Your task to perform on an android device: toggle notifications settings in the gmail app Image 0: 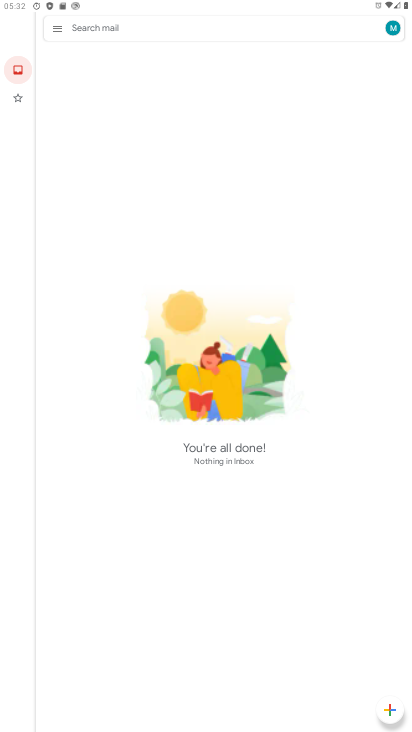
Step 0: press home button
Your task to perform on an android device: toggle notifications settings in the gmail app Image 1: 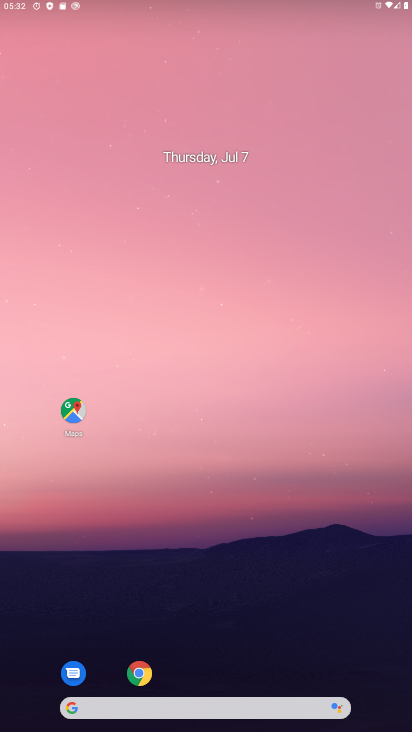
Step 1: drag from (304, 652) to (307, 120)
Your task to perform on an android device: toggle notifications settings in the gmail app Image 2: 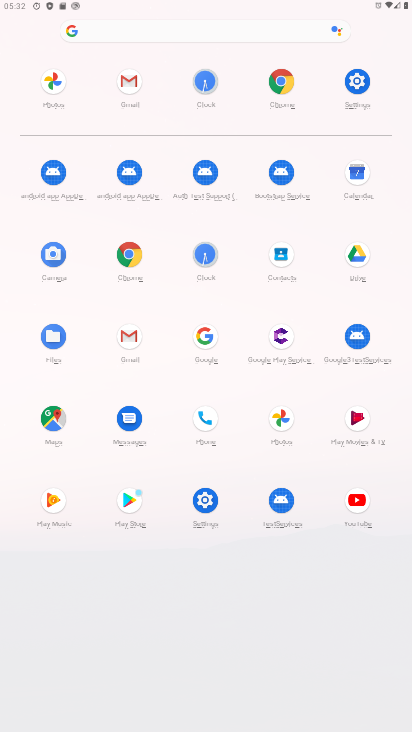
Step 2: click (136, 325)
Your task to perform on an android device: toggle notifications settings in the gmail app Image 3: 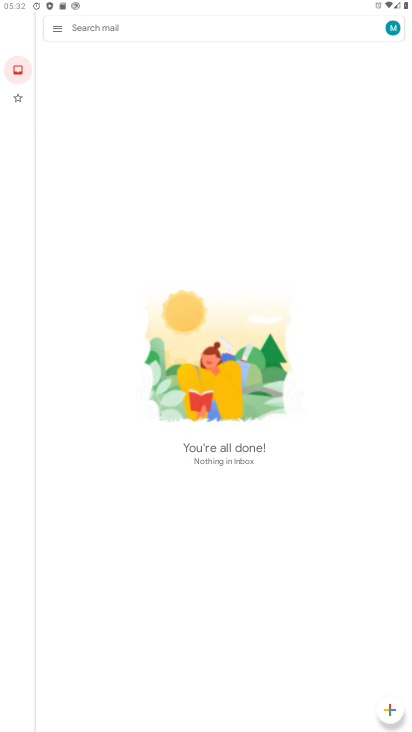
Step 3: click (63, 24)
Your task to perform on an android device: toggle notifications settings in the gmail app Image 4: 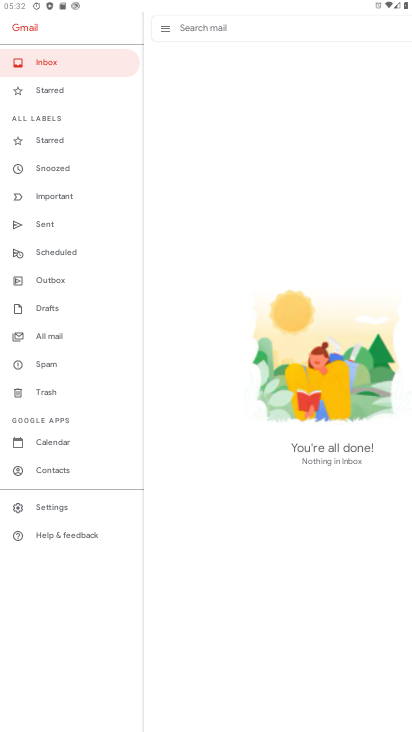
Step 4: click (69, 506)
Your task to perform on an android device: toggle notifications settings in the gmail app Image 5: 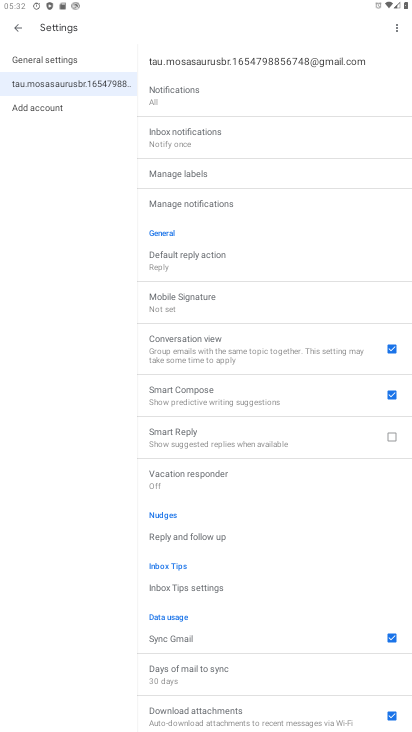
Step 5: click (214, 206)
Your task to perform on an android device: toggle notifications settings in the gmail app Image 6: 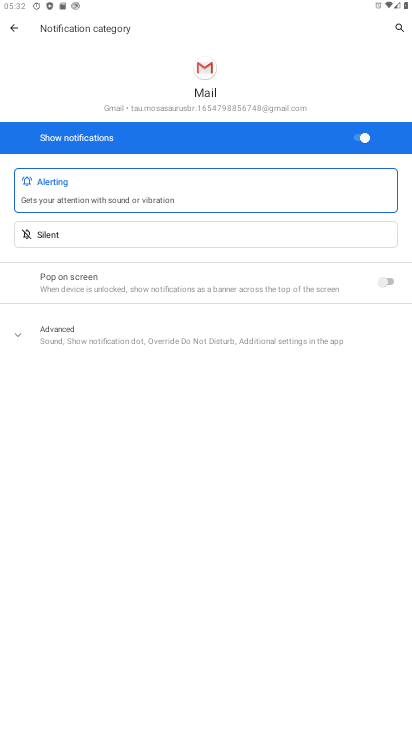
Step 6: click (361, 136)
Your task to perform on an android device: toggle notifications settings in the gmail app Image 7: 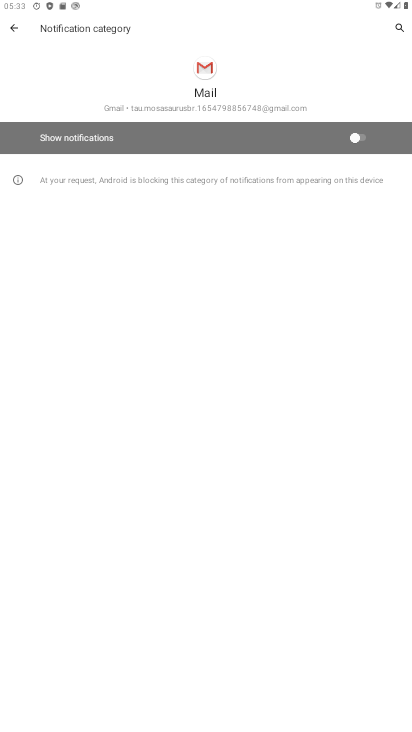
Step 7: task complete